Your task to perform on an android device: all mails in gmail Image 0: 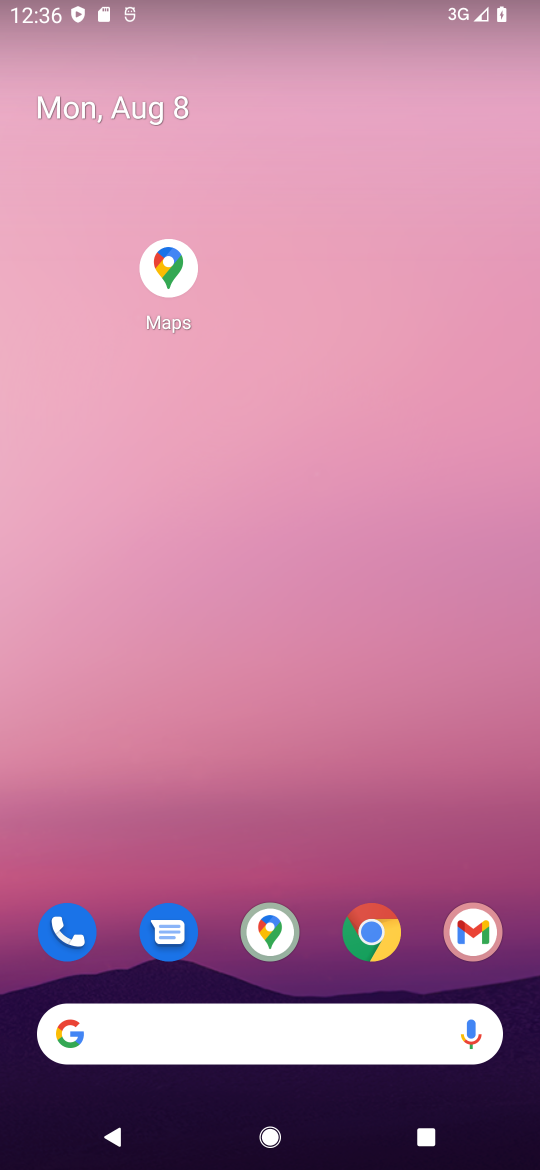
Step 0: click (464, 939)
Your task to perform on an android device: all mails in gmail Image 1: 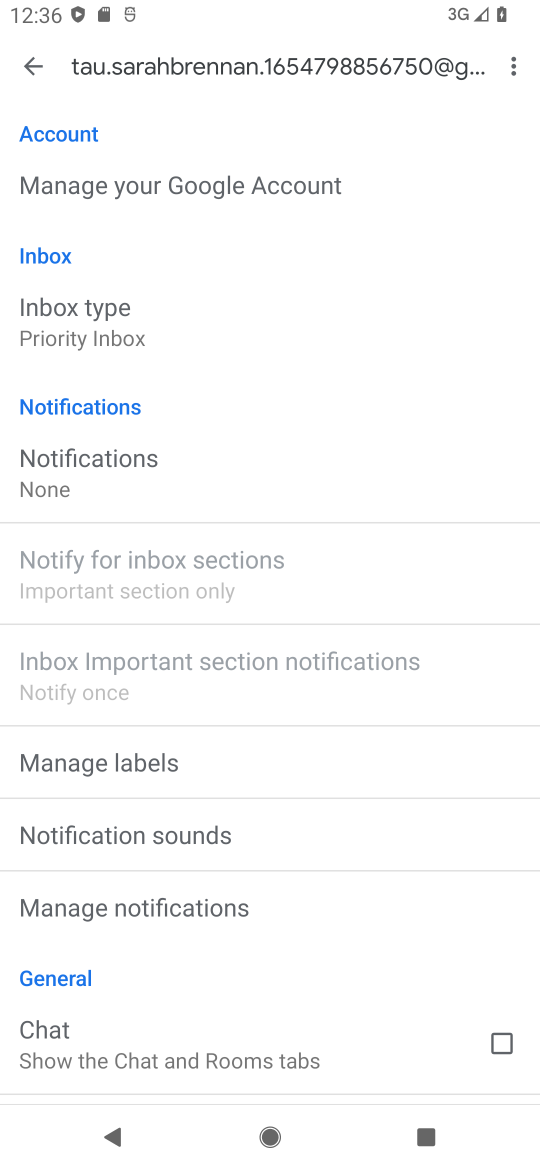
Step 1: click (33, 68)
Your task to perform on an android device: all mails in gmail Image 2: 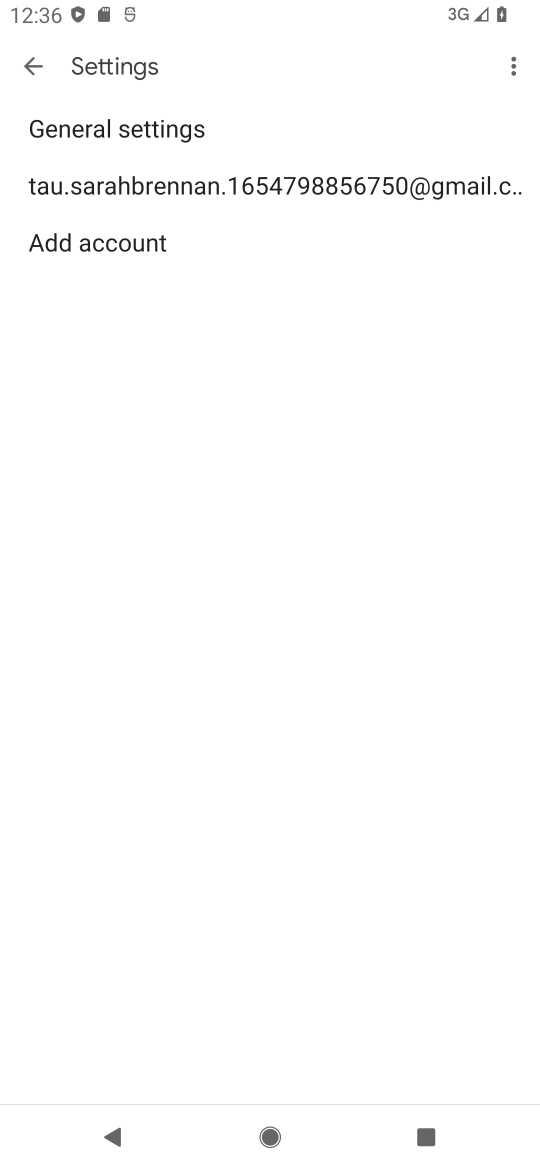
Step 2: click (33, 68)
Your task to perform on an android device: all mails in gmail Image 3: 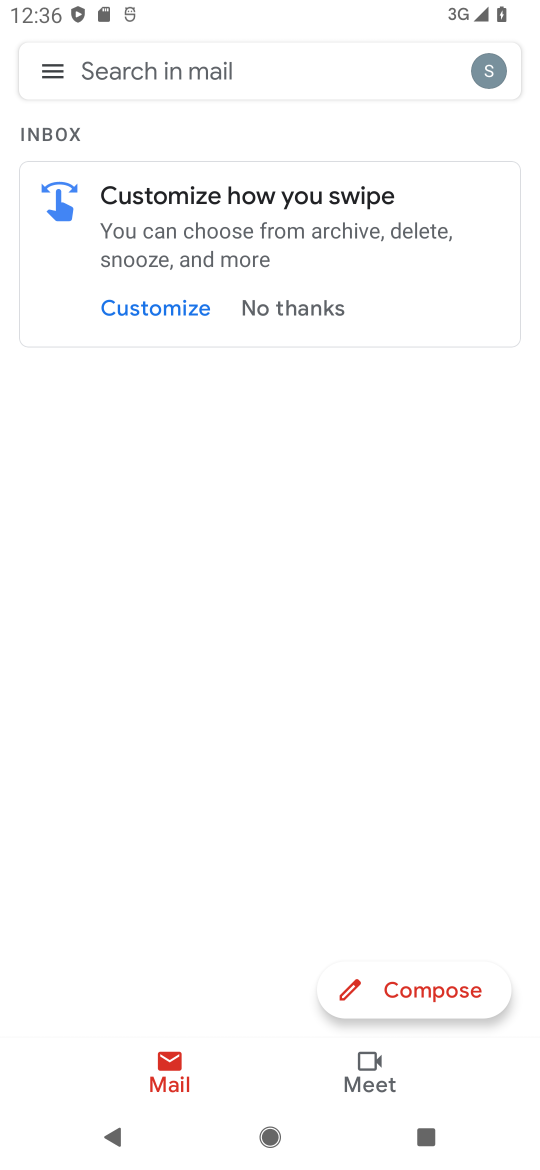
Step 3: click (49, 76)
Your task to perform on an android device: all mails in gmail Image 4: 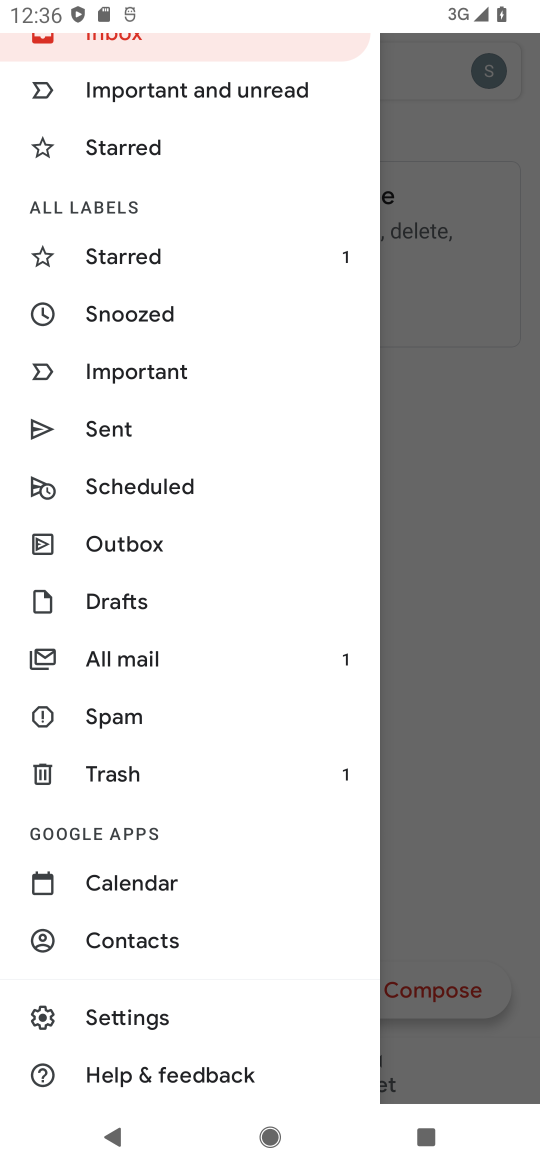
Step 4: click (121, 657)
Your task to perform on an android device: all mails in gmail Image 5: 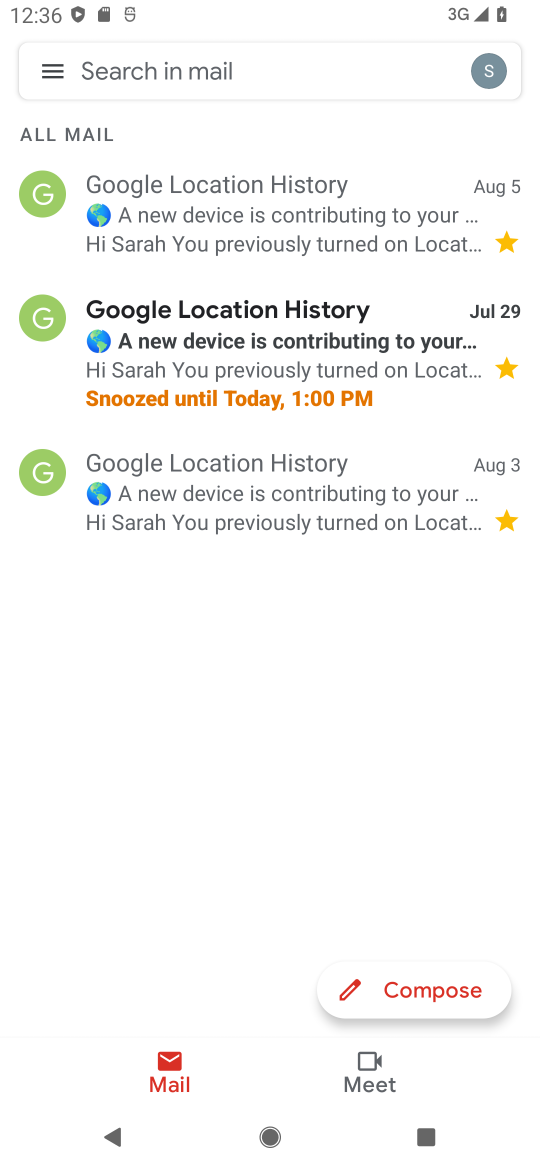
Step 5: task complete